Your task to perform on an android device: Search for hotels in Mexico city Image 0: 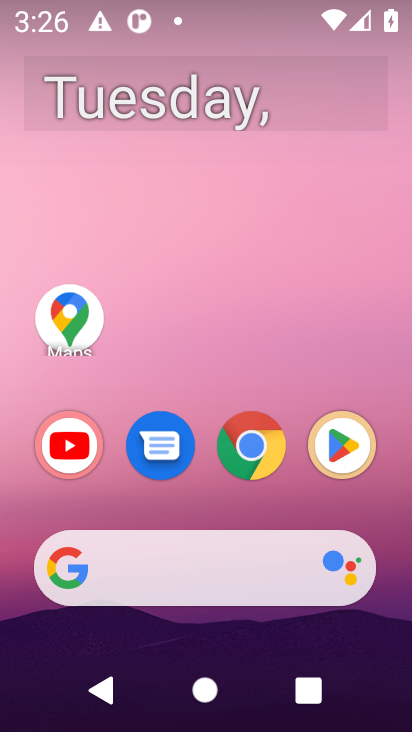
Step 0: drag from (148, 528) to (205, 104)
Your task to perform on an android device: Search for hotels in Mexico city Image 1: 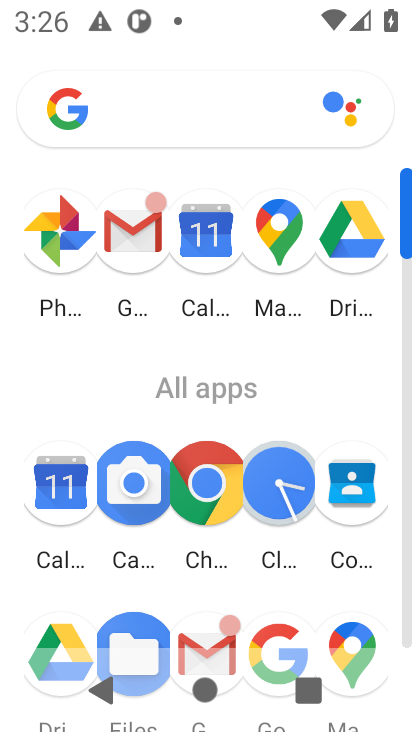
Step 1: click (279, 627)
Your task to perform on an android device: Search for hotels in Mexico city Image 2: 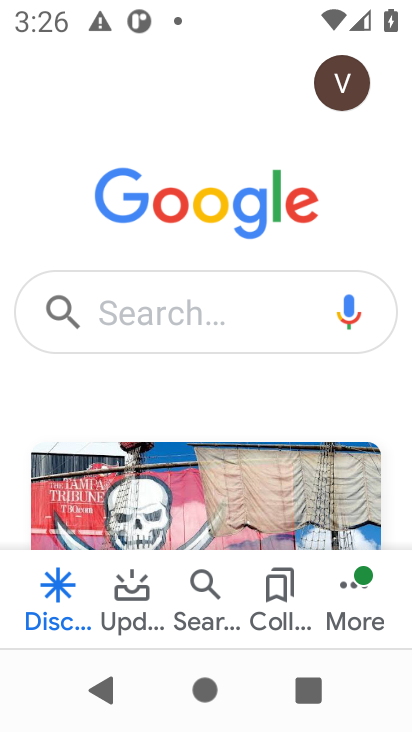
Step 2: click (218, 315)
Your task to perform on an android device: Search for hotels in Mexico city Image 3: 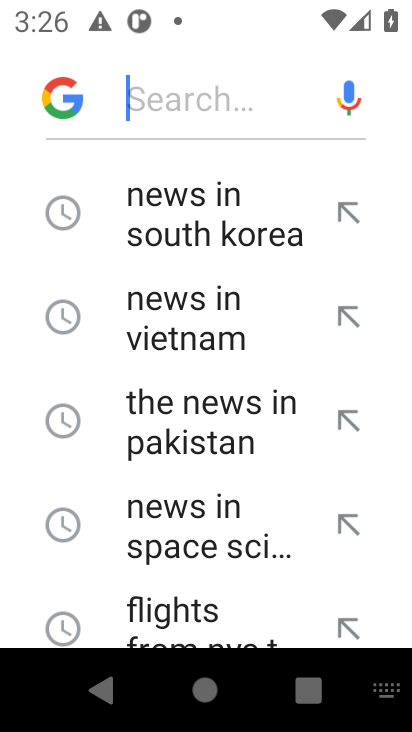
Step 3: type "Search for hotels in Mexico city"
Your task to perform on an android device: Search for hotels in Mexico city Image 4: 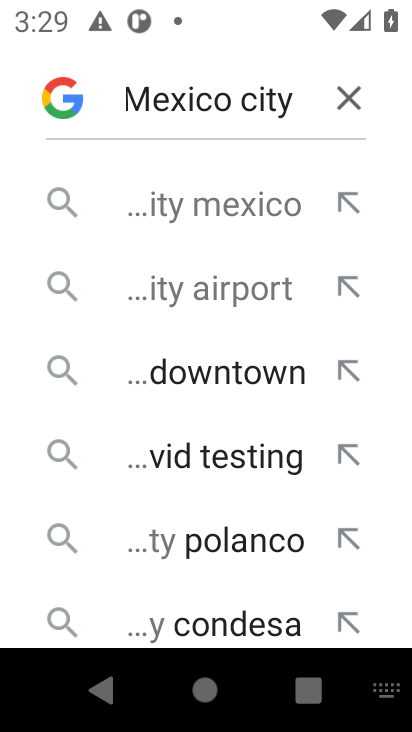
Step 4: click (226, 207)
Your task to perform on an android device: Search for hotels in Mexico city Image 5: 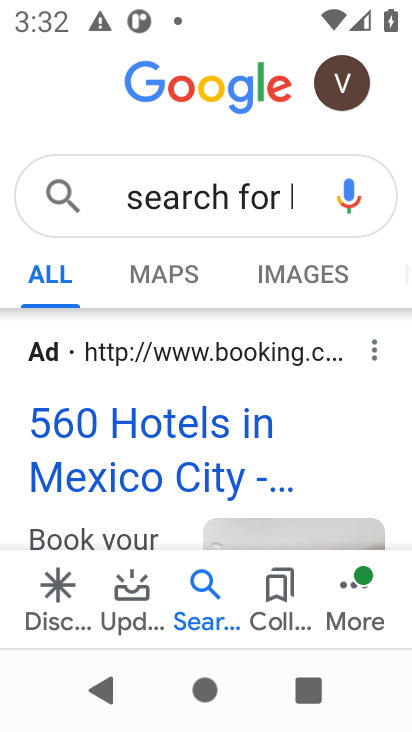
Step 5: task complete